Your task to perform on an android device: turn pop-ups off in chrome Image 0: 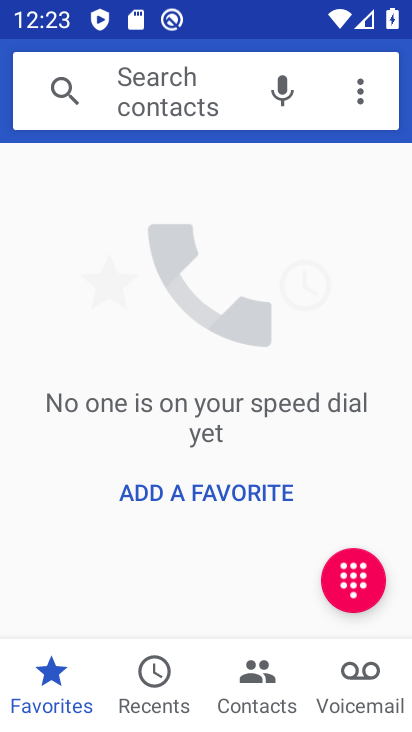
Step 0: press home button
Your task to perform on an android device: turn pop-ups off in chrome Image 1: 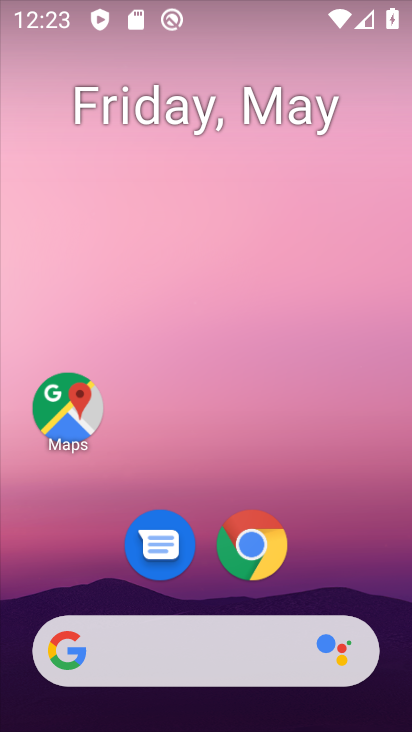
Step 1: drag from (329, 542) to (330, 134)
Your task to perform on an android device: turn pop-ups off in chrome Image 2: 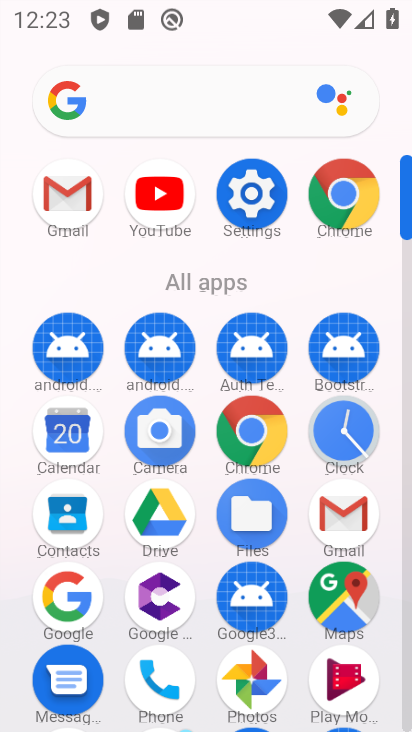
Step 2: click (337, 197)
Your task to perform on an android device: turn pop-ups off in chrome Image 3: 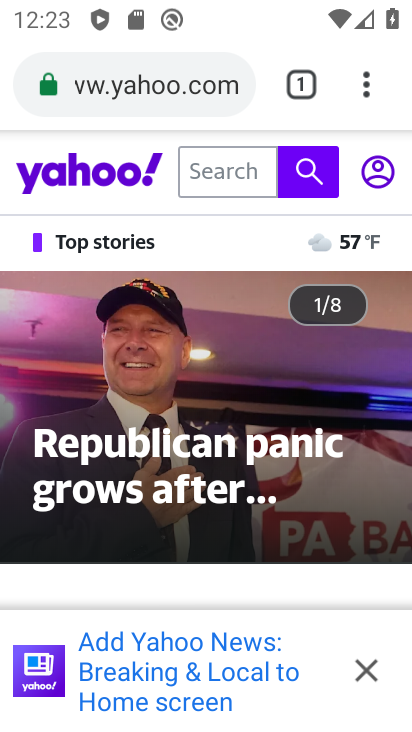
Step 3: click (353, 87)
Your task to perform on an android device: turn pop-ups off in chrome Image 4: 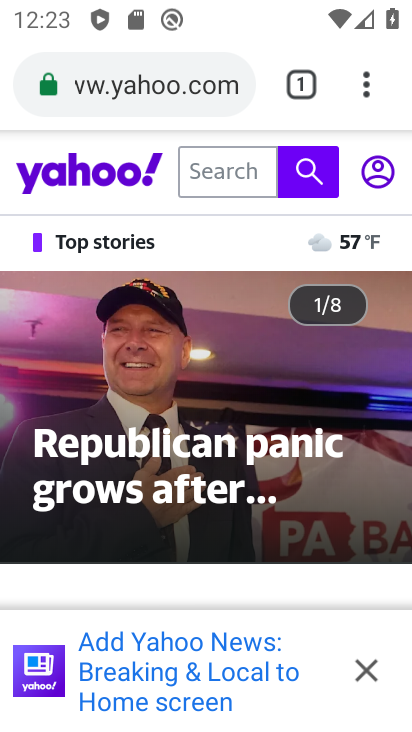
Step 4: click (374, 82)
Your task to perform on an android device: turn pop-ups off in chrome Image 5: 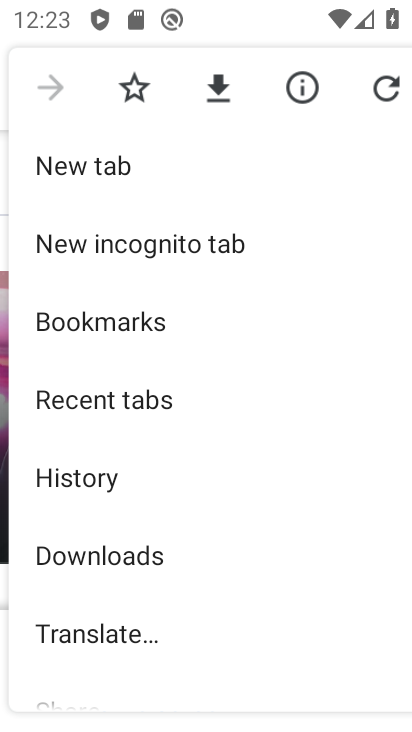
Step 5: drag from (391, 583) to (391, 223)
Your task to perform on an android device: turn pop-ups off in chrome Image 6: 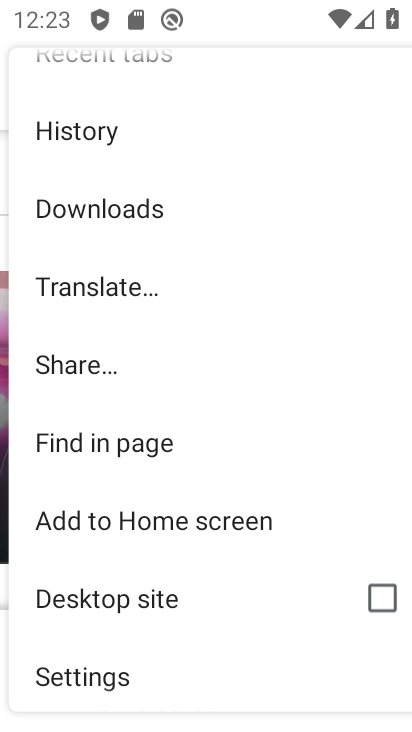
Step 6: drag from (222, 537) to (230, 146)
Your task to perform on an android device: turn pop-ups off in chrome Image 7: 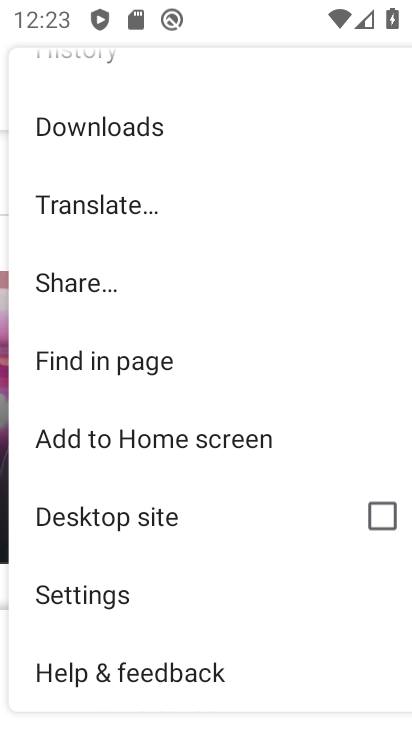
Step 7: click (163, 592)
Your task to perform on an android device: turn pop-ups off in chrome Image 8: 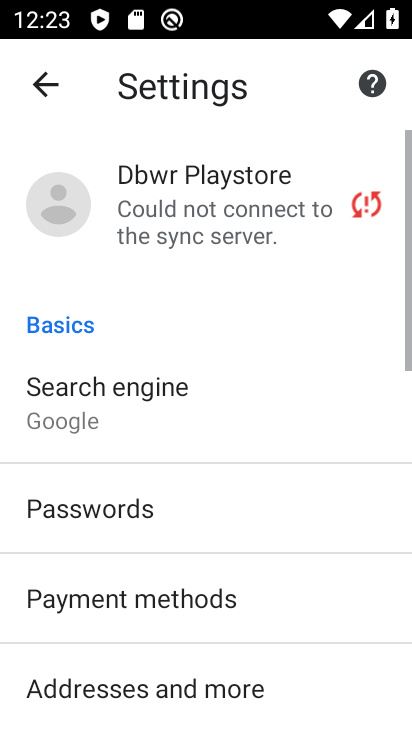
Step 8: drag from (201, 587) to (197, 251)
Your task to perform on an android device: turn pop-ups off in chrome Image 9: 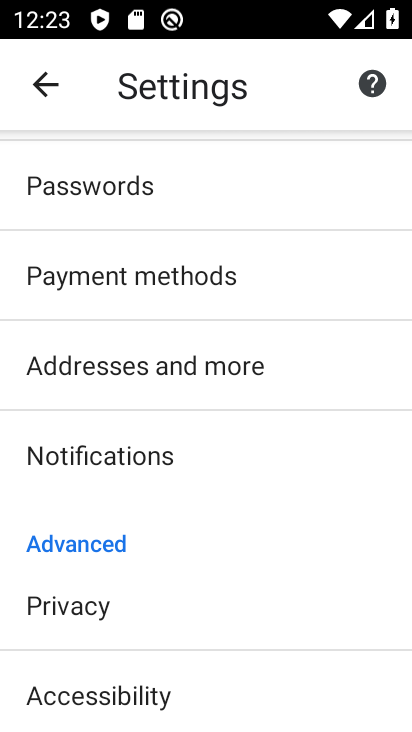
Step 9: drag from (213, 536) to (214, 206)
Your task to perform on an android device: turn pop-ups off in chrome Image 10: 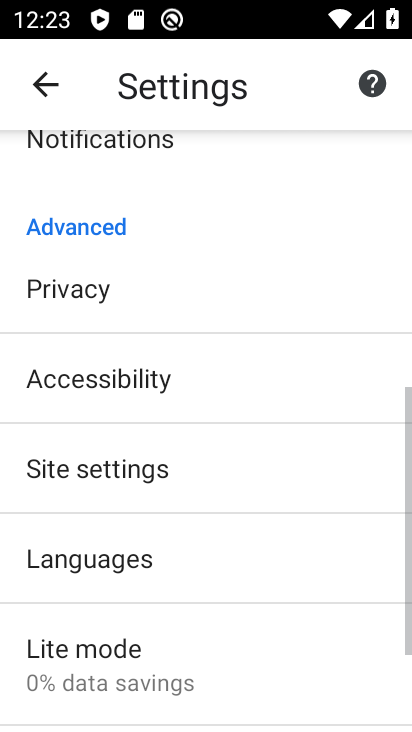
Step 10: click (260, 449)
Your task to perform on an android device: turn pop-ups off in chrome Image 11: 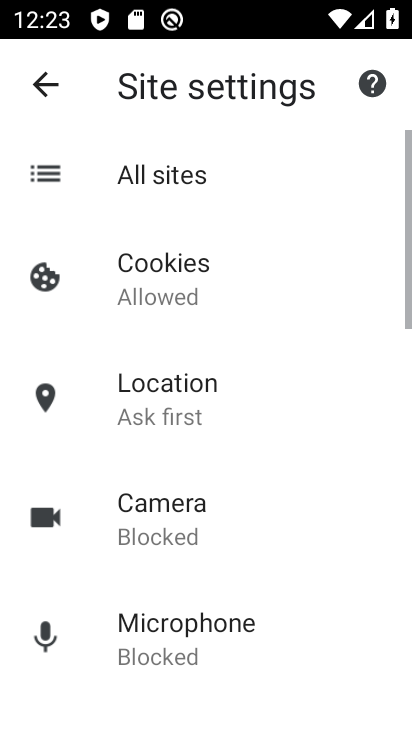
Step 11: drag from (278, 489) to (297, 204)
Your task to perform on an android device: turn pop-ups off in chrome Image 12: 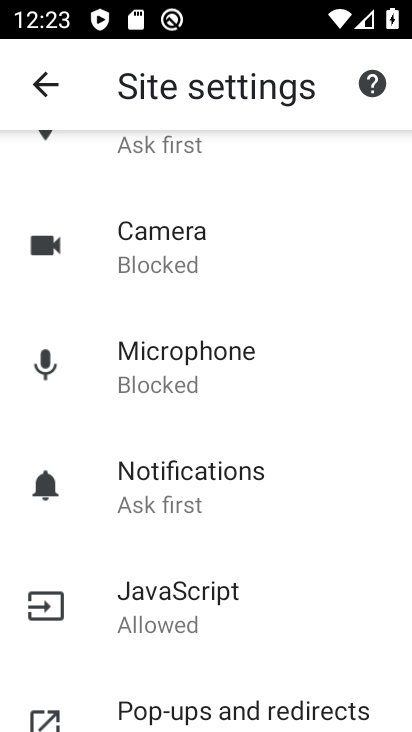
Step 12: drag from (272, 497) to (274, 179)
Your task to perform on an android device: turn pop-ups off in chrome Image 13: 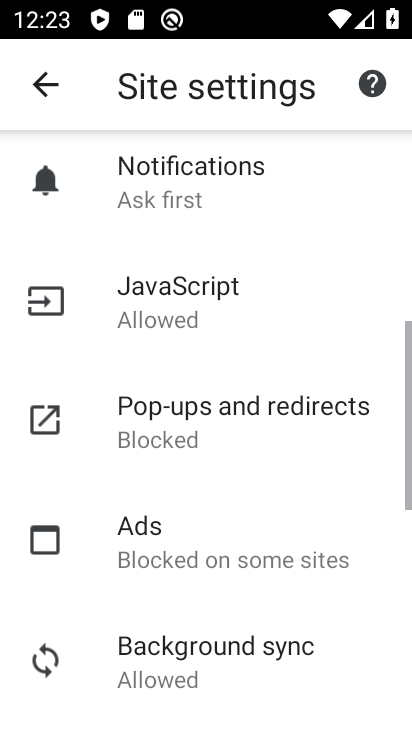
Step 13: click (306, 400)
Your task to perform on an android device: turn pop-ups off in chrome Image 14: 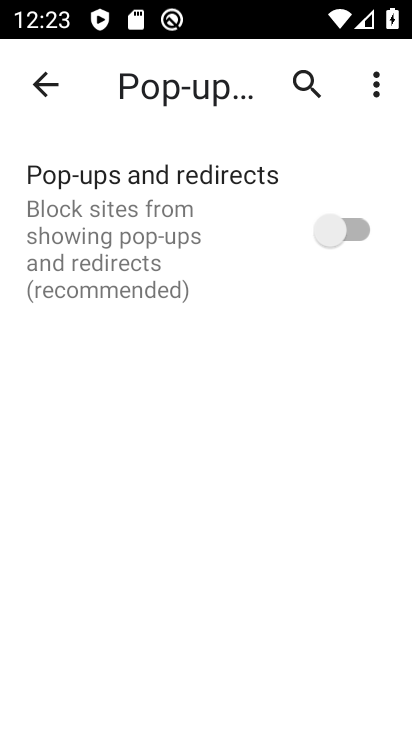
Step 14: click (314, 224)
Your task to perform on an android device: turn pop-ups off in chrome Image 15: 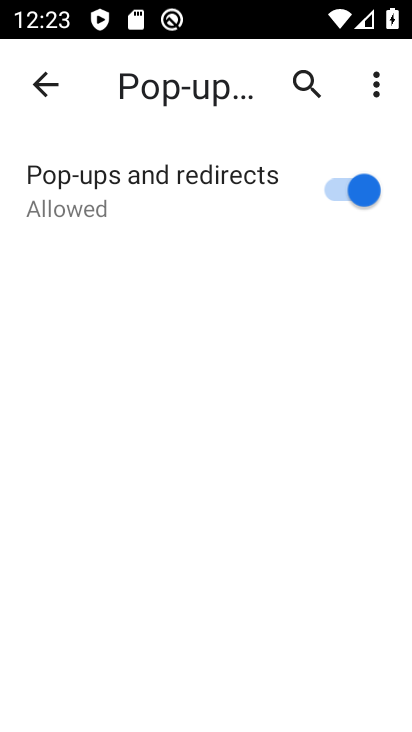
Step 15: task complete